Your task to perform on an android device: delete a single message in the gmail app Image 0: 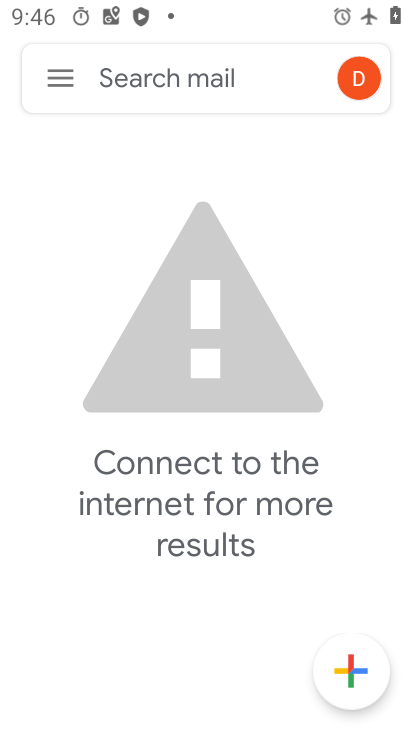
Step 0: press back button
Your task to perform on an android device: delete a single message in the gmail app Image 1: 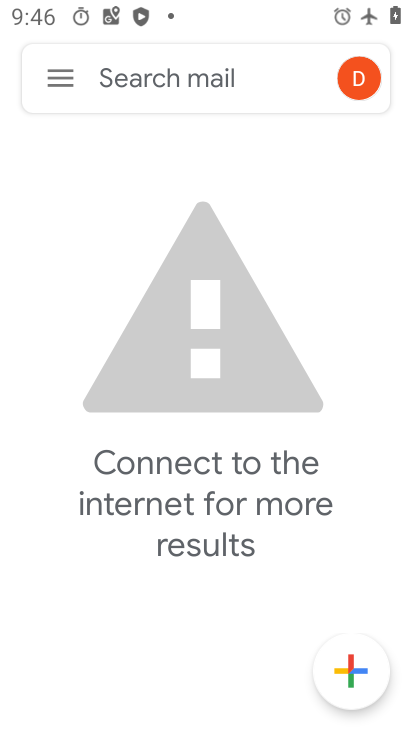
Step 1: press back button
Your task to perform on an android device: delete a single message in the gmail app Image 2: 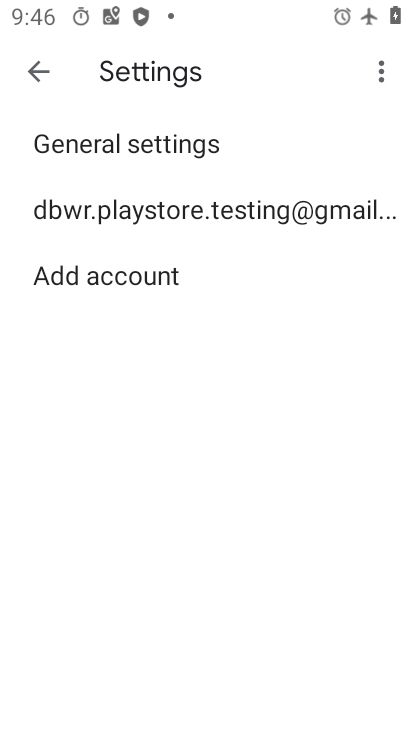
Step 2: press back button
Your task to perform on an android device: delete a single message in the gmail app Image 3: 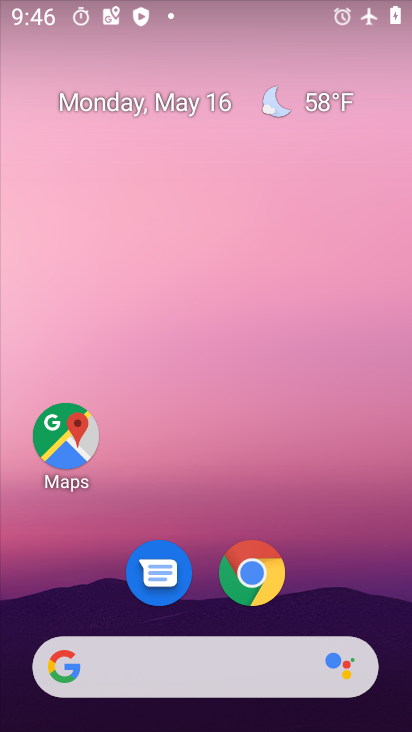
Step 3: drag from (305, 574) to (181, 179)
Your task to perform on an android device: delete a single message in the gmail app Image 4: 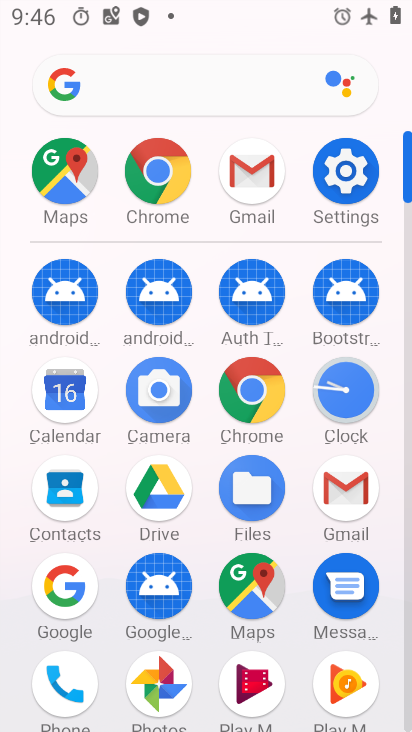
Step 4: click (349, 485)
Your task to perform on an android device: delete a single message in the gmail app Image 5: 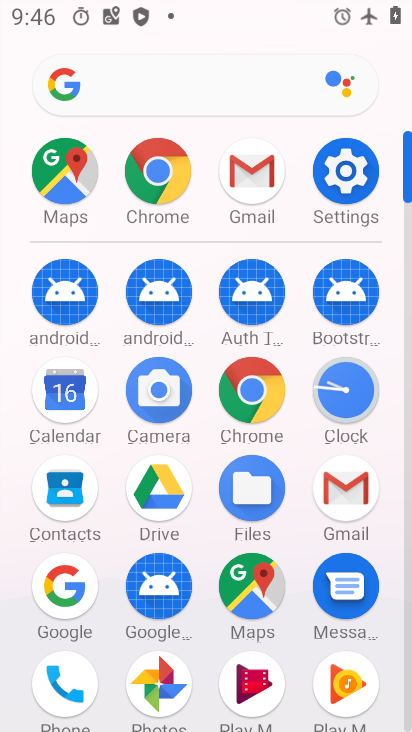
Step 5: click (349, 485)
Your task to perform on an android device: delete a single message in the gmail app Image 6: 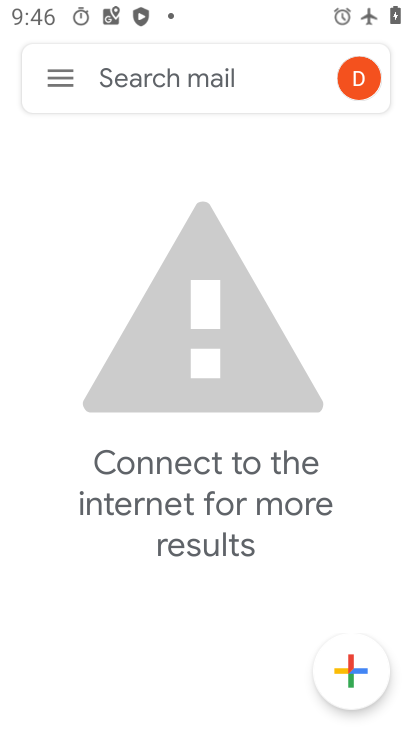
Step 6: click (50, 79)
Your task to perform on an android device: delete a single message in the gmail app Image 7: 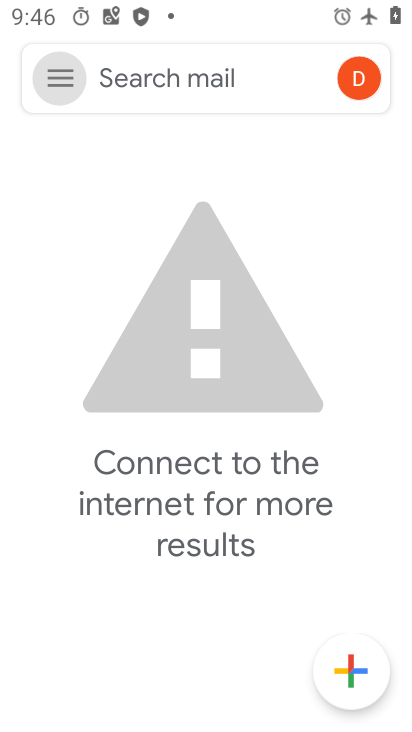
Step 7: click (51, 78)
Your task to perform on an android device: delete a single message in the gmail app Image 8: 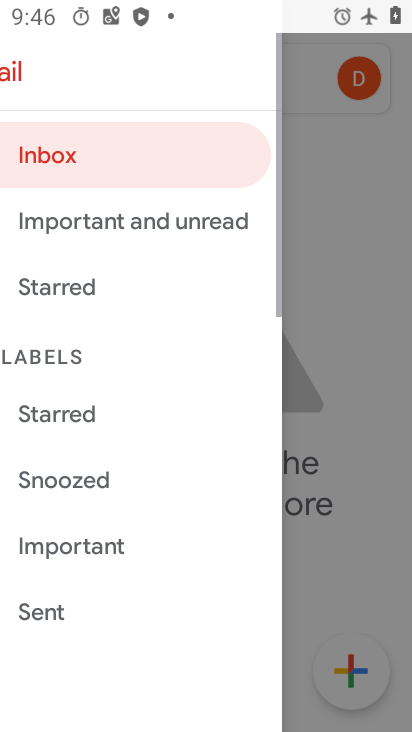
Step 8: click (51, 78)
Your task to perform on an android device: delete a single message in the gmail app Image 9: 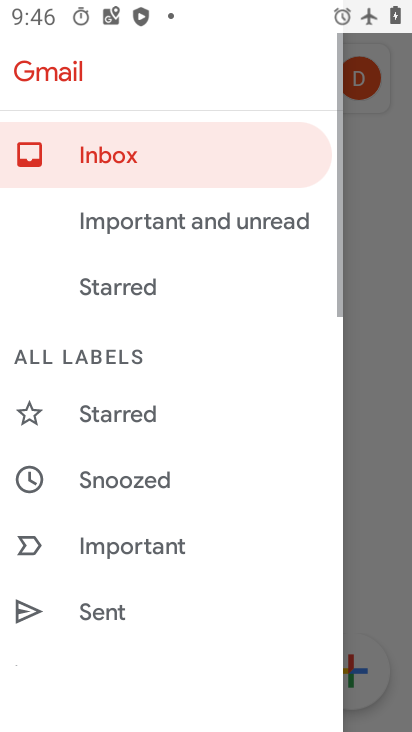
Step 9: click (52, 78)
Your task to perform on an android device: delete a single message in the gmail app Image 10: 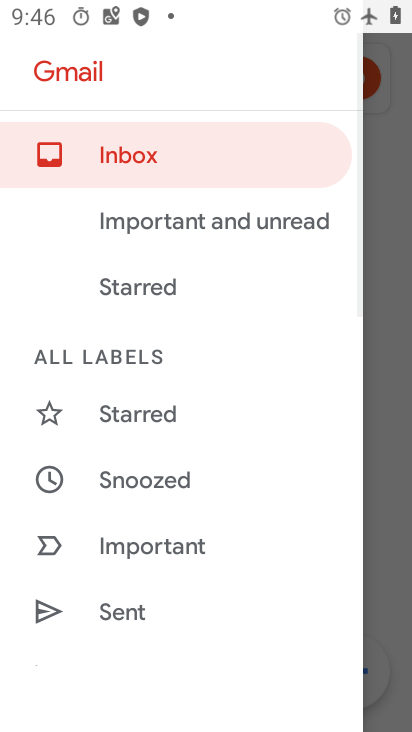
Step 10: drag from (136, 603) to (120, 175)
Your task to perform on an android device: delete a single message in the gmail app Image 11: 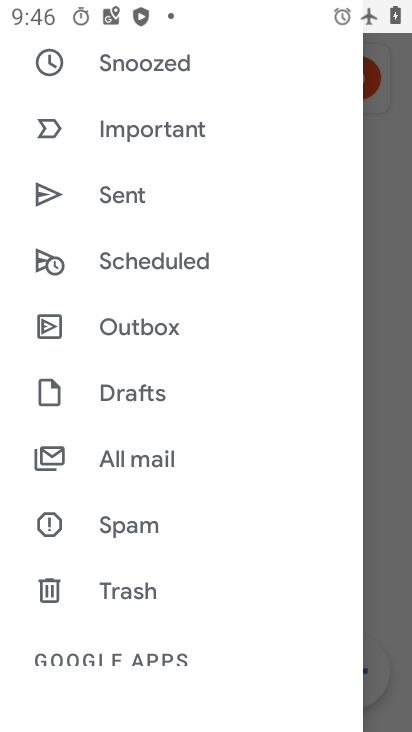
Step 11: click (115, 471)
Your task to perform on an android device: delete a single message in the gmail app Image 12: 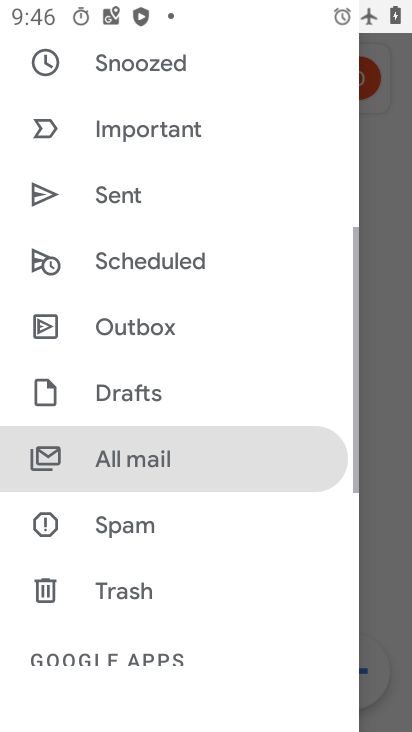
Step 12: click (116, 469)
Your task to perform on an android device: delete a single message in the gmail app Image 13: 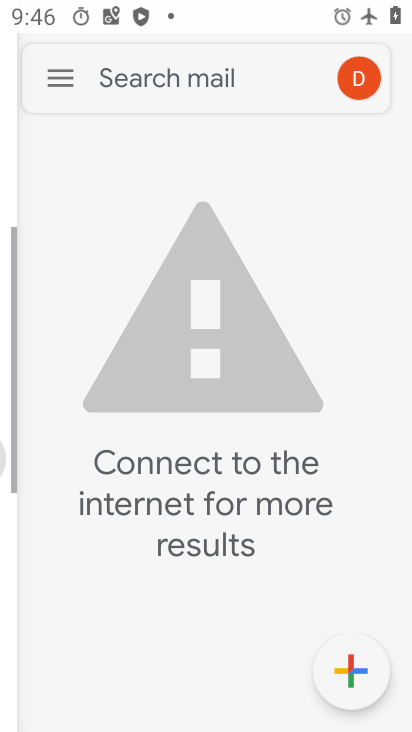
Step 13: click (116, 469)
Your task to perform on an android device: delete a single message in the gmail app Image 14: 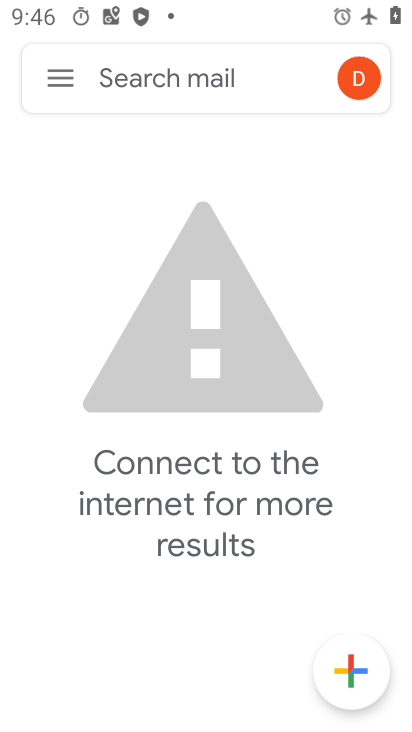
Step 14: click (116, 469)
Your task to perform on an android device: delete a single message in the gmail app Image 15: 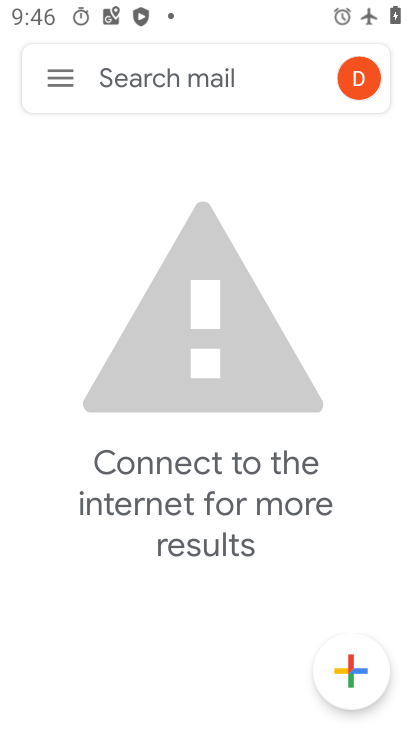
Step 15: task complete